Your task to perform on an android device: install app "Airtel Thanks" Image 0: 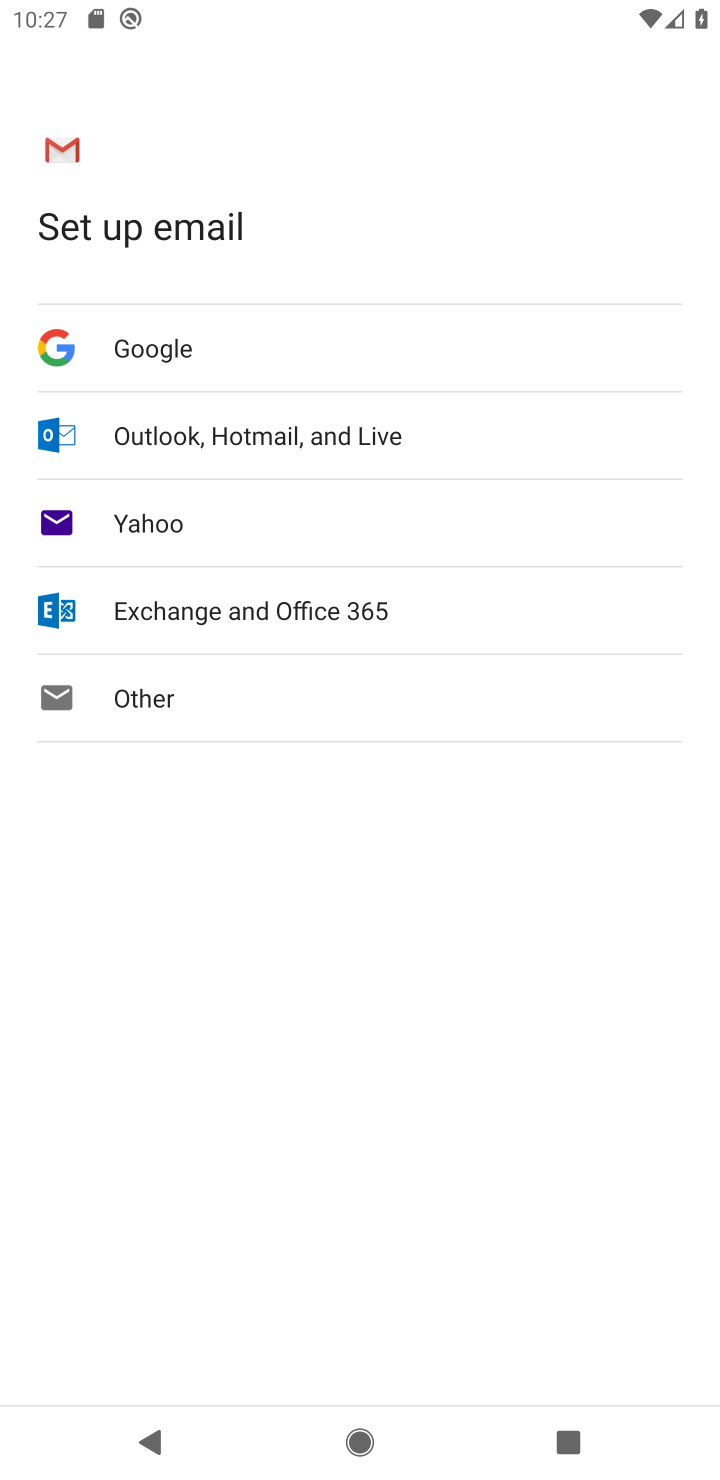
Step 0: press home button
Your task to perform on an android device: install app "Airtel Thanks" Image 1: 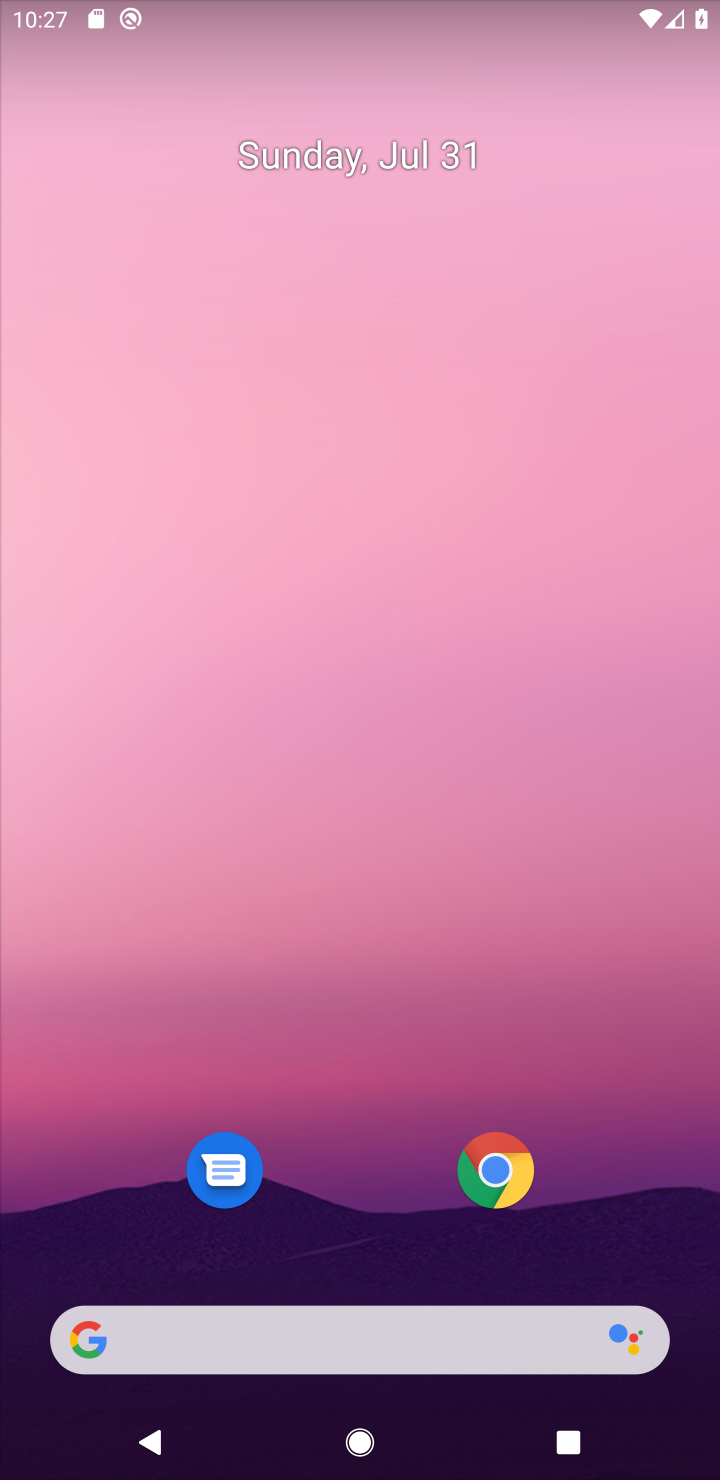
Step 1: drag from (560, 727) to (319, 27)
Your task to perform on an android device: install app "Airtel Thanks" Image 2: 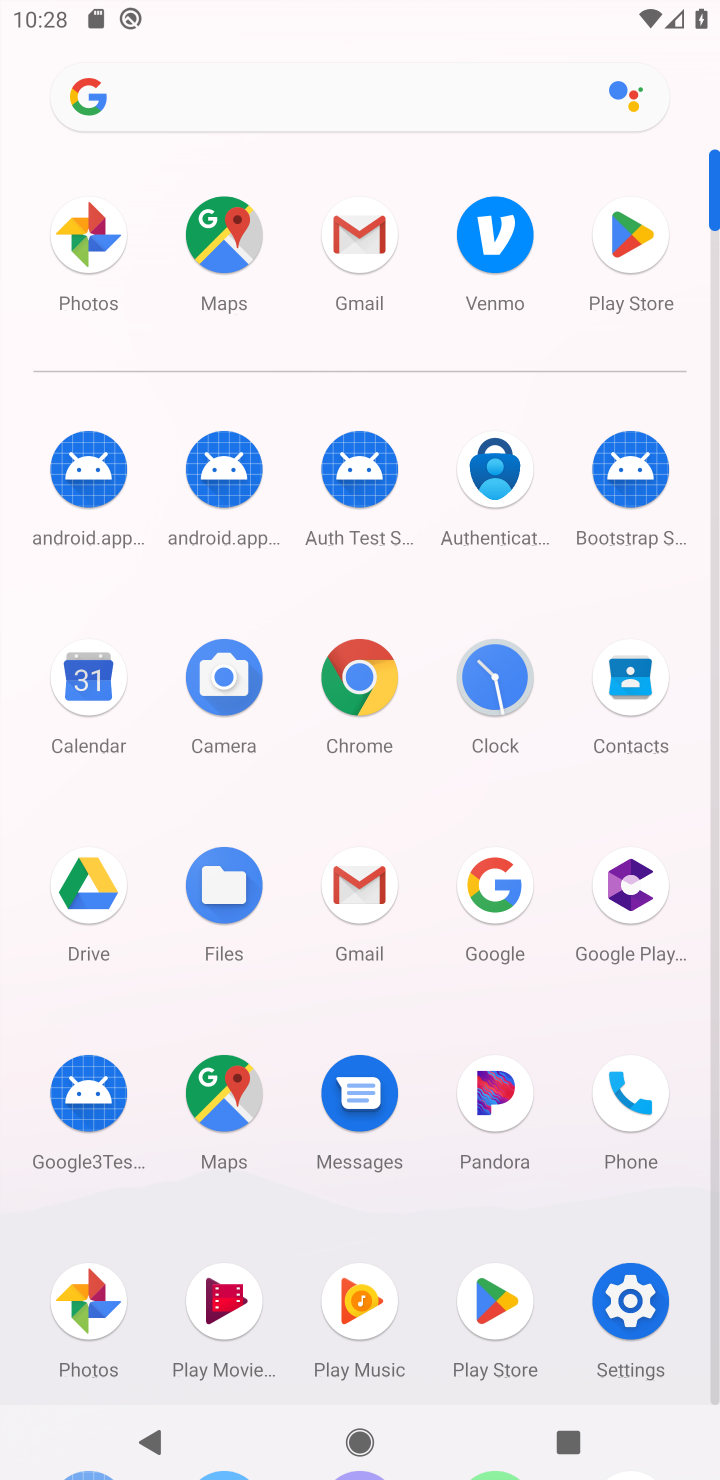
Step 2: click (625, 241)
Your task to perform on an android device: install app "Airtel Thanks" Image 3: 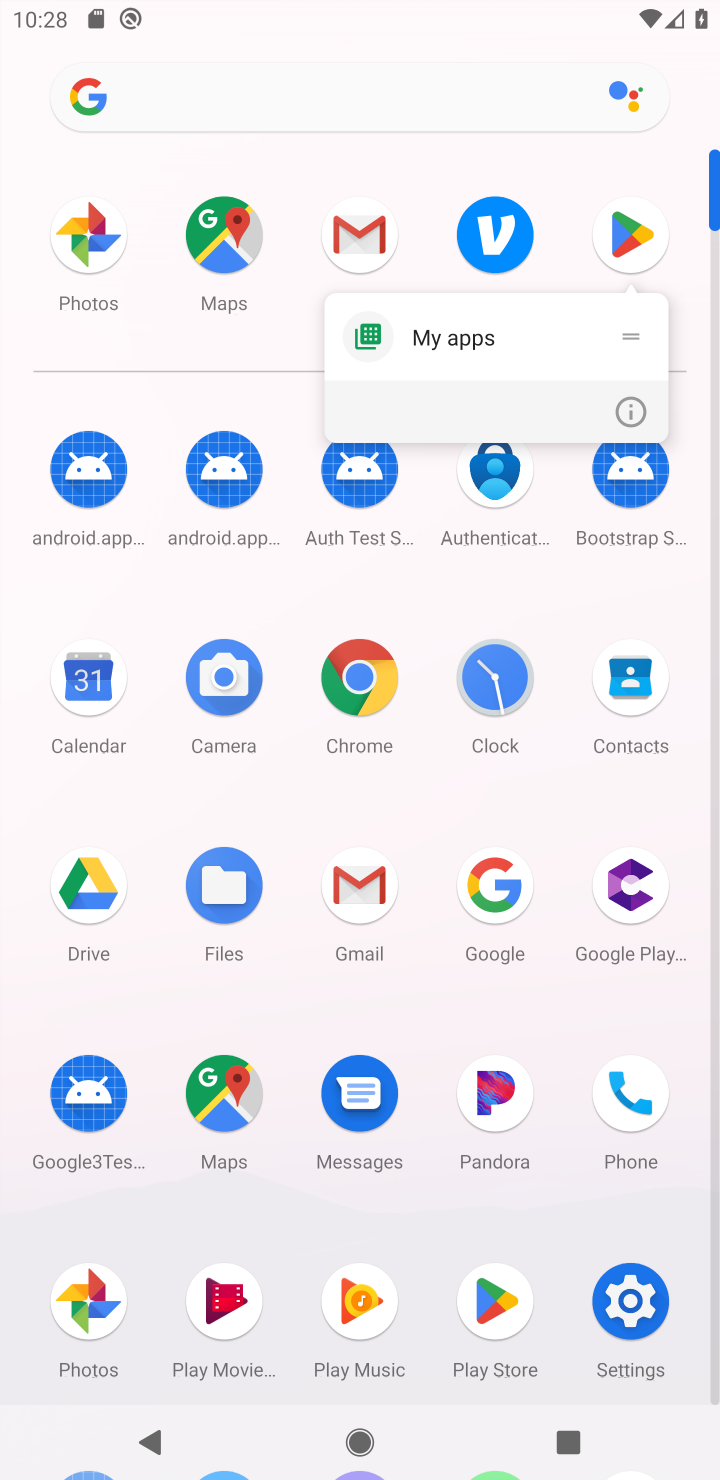
Step 3: click (651, 250)
Your task to perform on an android device: install app "Airtel Thanks" Image 4: 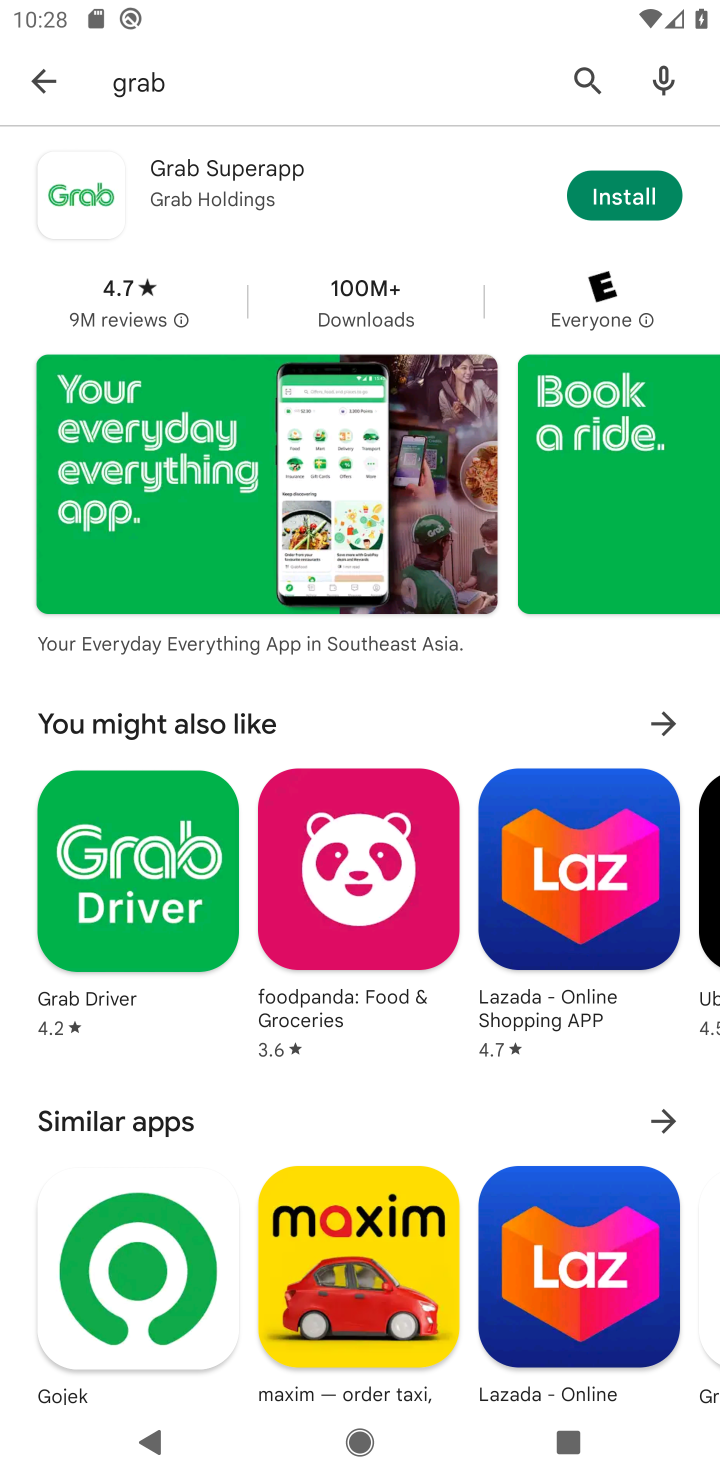
Step 4: press back button
Your task to perform on an android device: install app "Airtel Thanks" Image 5: 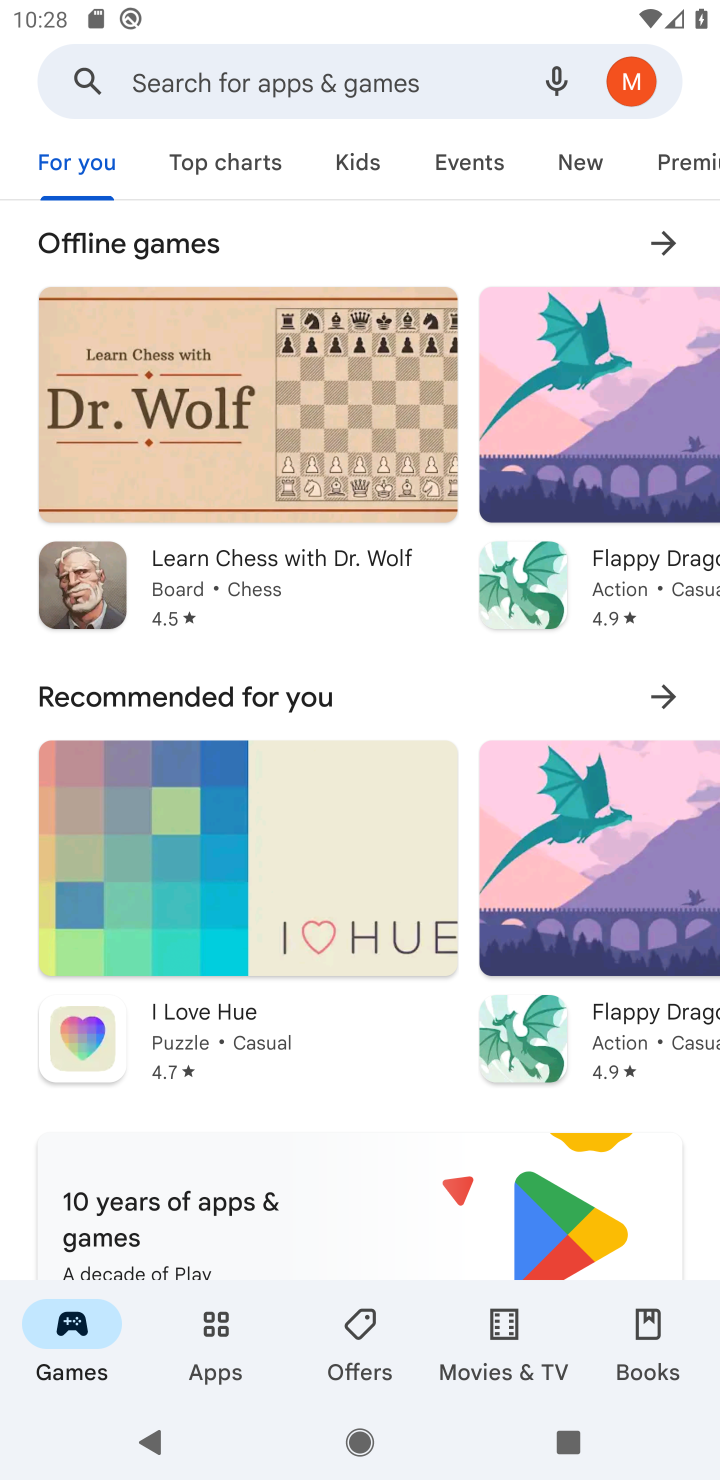
Step 5: click (240, 90)
Your task to perform on an android device: install app "Airtel Thanks" Image 6: 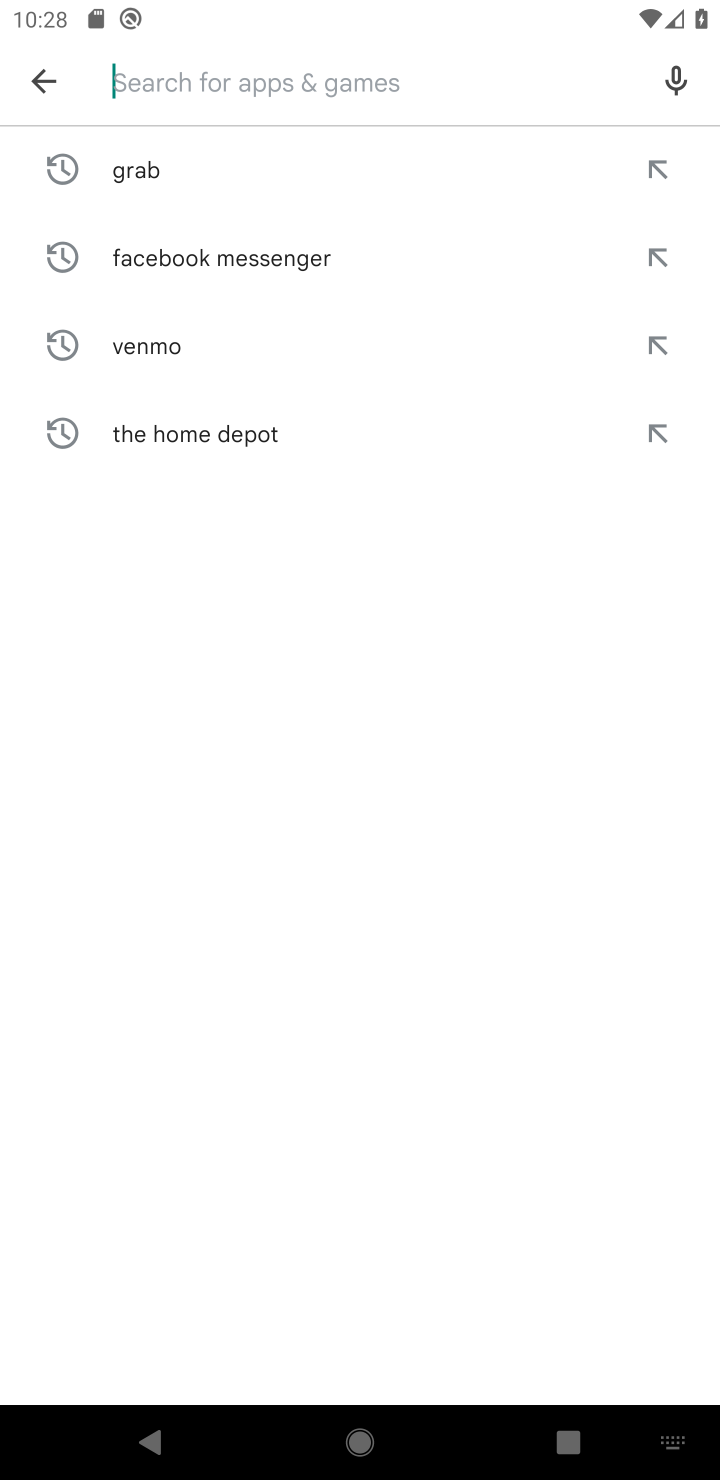
Step 6: type "Airtel Thanks"
Your task to perform on an android device: install app "Airtel Thanks" Image 7: 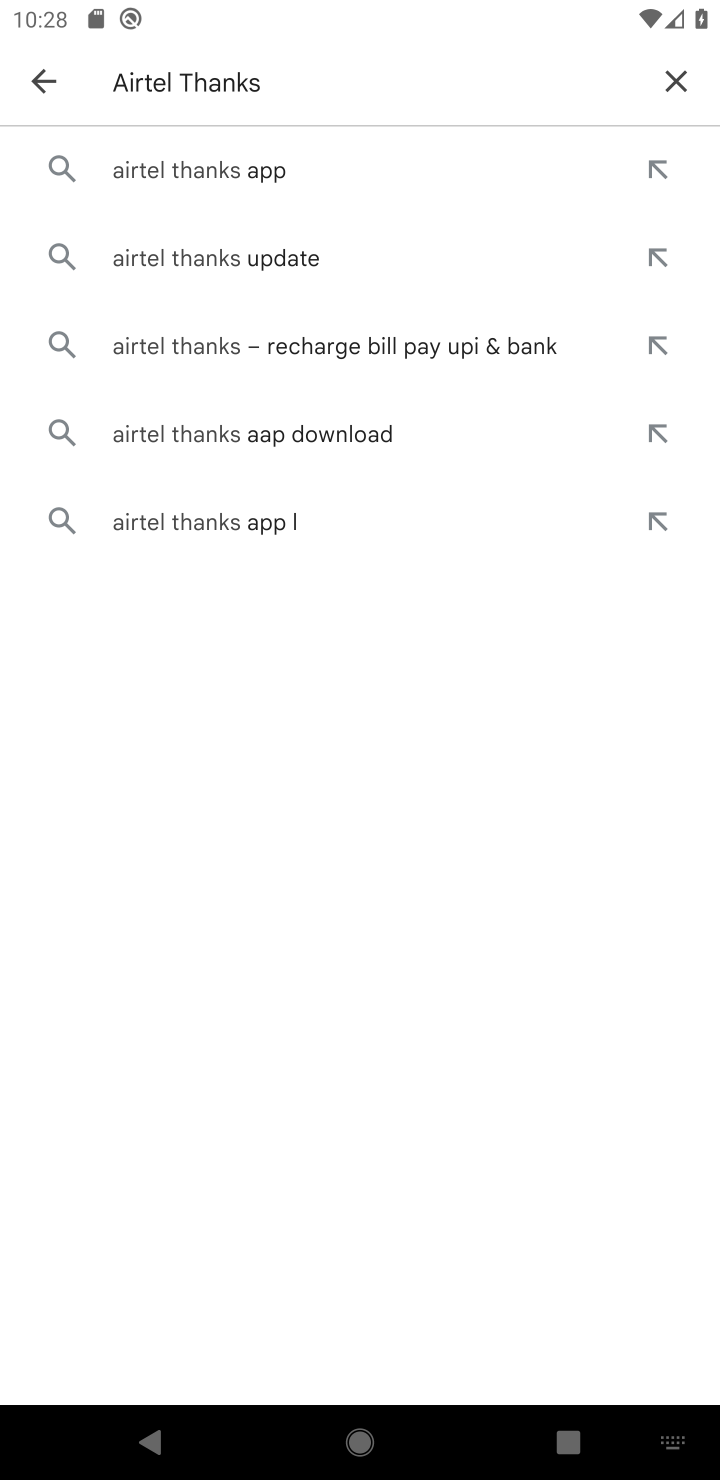
Step 7: click (192, 175)
Your task to perform on an android device: install app "Airtel Thanks" Image 8: 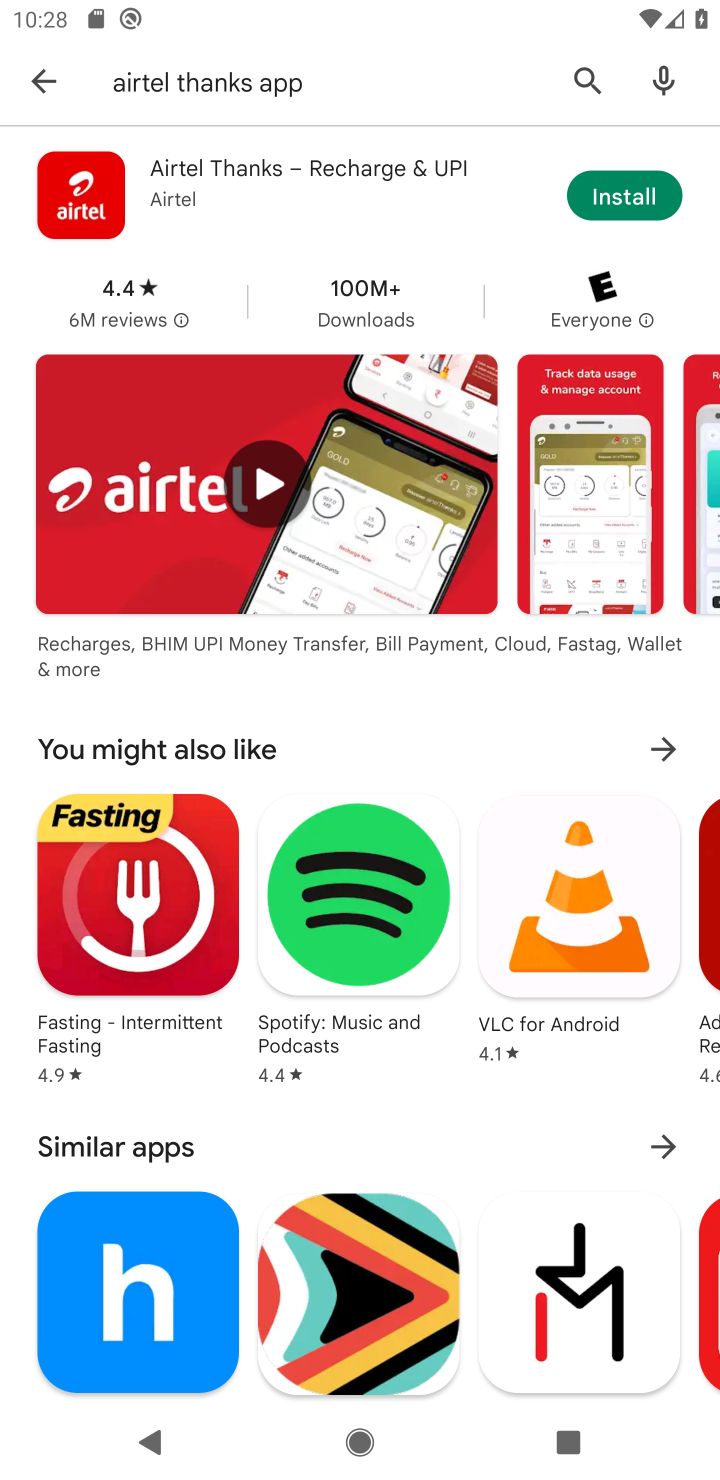
Step 8: click (648, 202)
Your task to perform on an android device: install app "Airtel Thanks" Image 9: 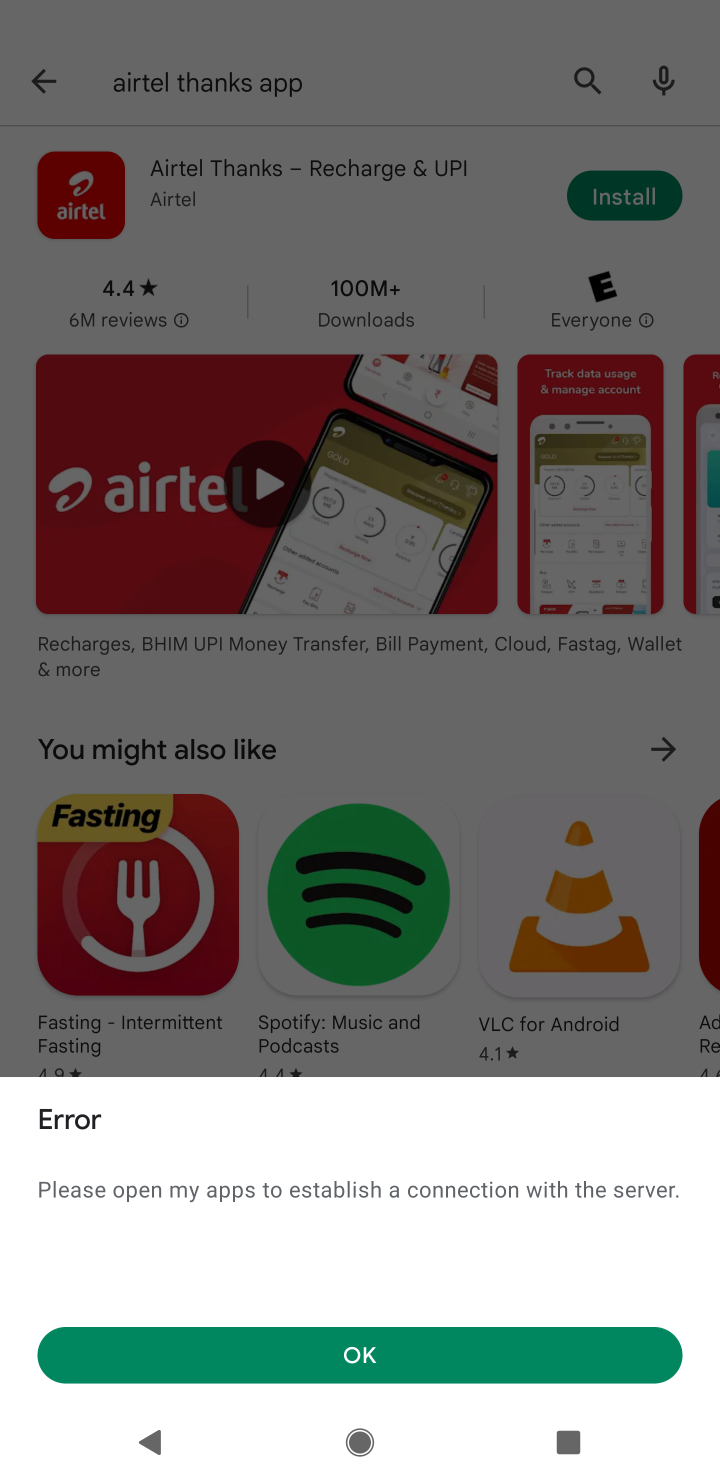
Step 9: task complete